Your task to perform on an android device: Show me the alarms in the clock app Image 0: 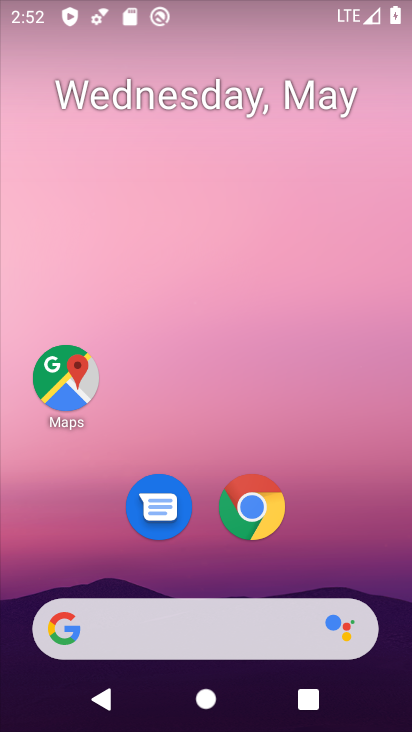
Step 0: drag from (322, 535) to (251, 52)
Your task to perform on an android device: Show me the alarms in the clock app Image 1: 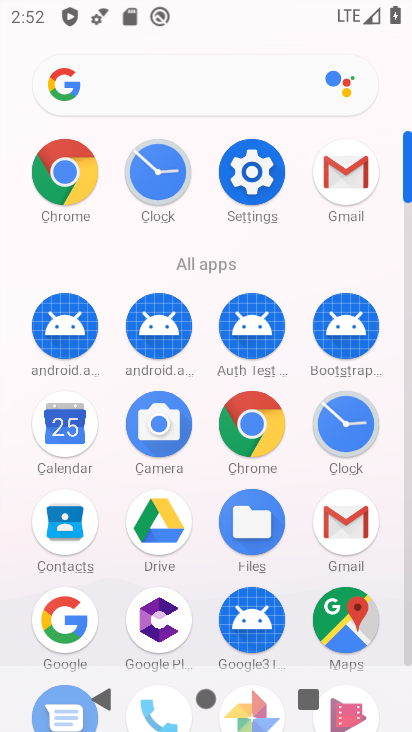
Step 1: drag from (2, 538) to (3, 232)
Your task to perform on an android device: Show me the alarms in the clock app Image 2: 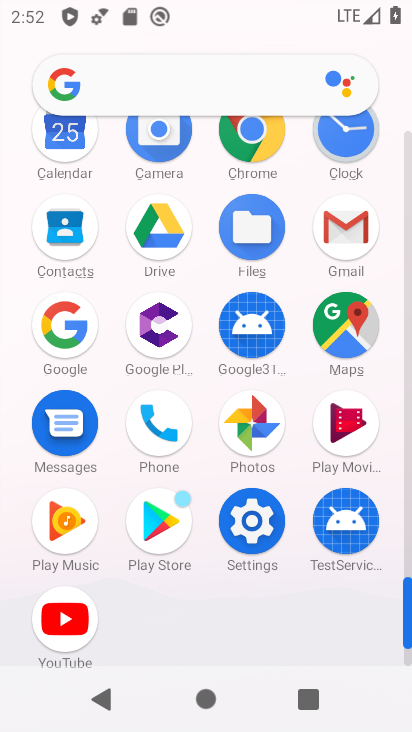
Step 2: click (342, 131)
Your task to perform on an android device: Show me the alarms in the clock app Image 3: 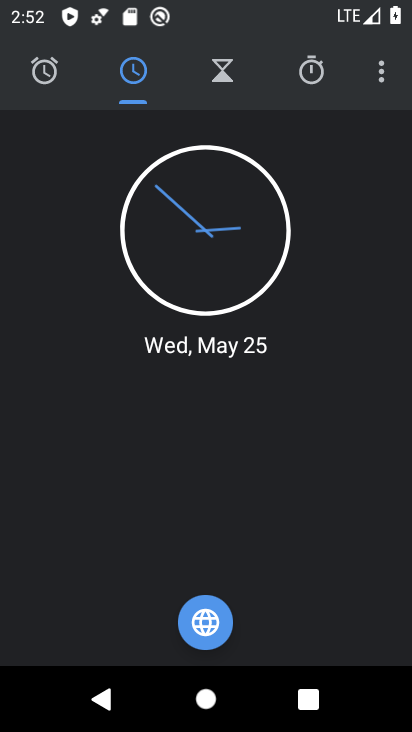
Step 3: click (26, 79)
Your task to perform on an android device: Show me the alarms in the clock app Image 4: 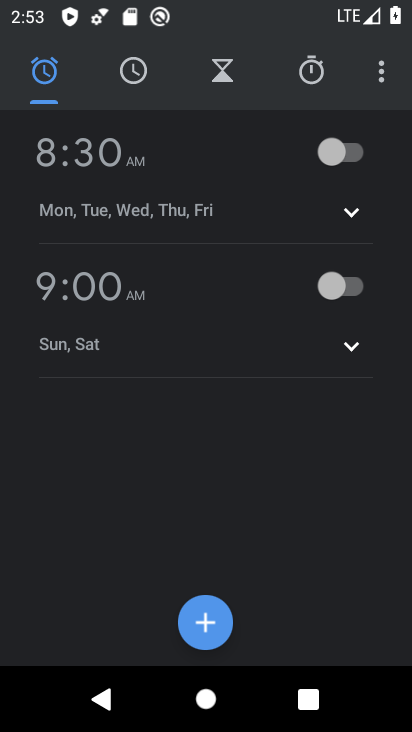
Step 4: task complete